Your task to perform on an android device: What's on my calendar tomorrow? Image 0: 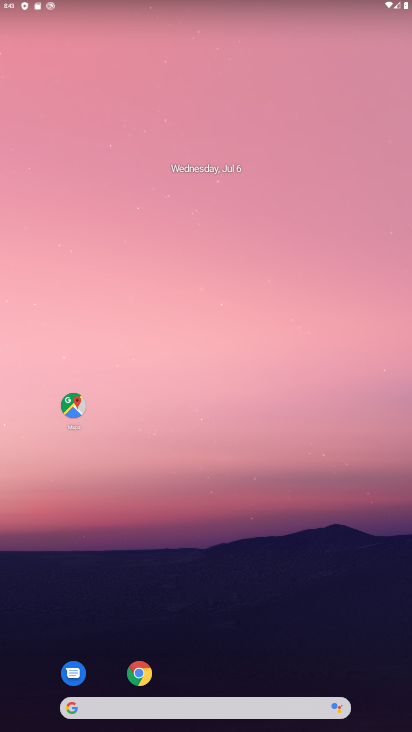
Step 0: drag from (283, 614) to (282, 152)
Your task to perform on an android device: What's on my calendar tomorrow? Image 1: 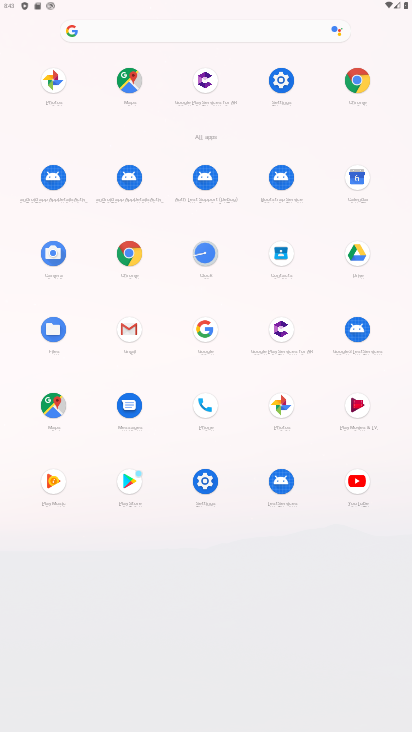
Step 1: click (354, 180)
Your task to perform on an android device: What's on my calendar tomorrow? Image 2: 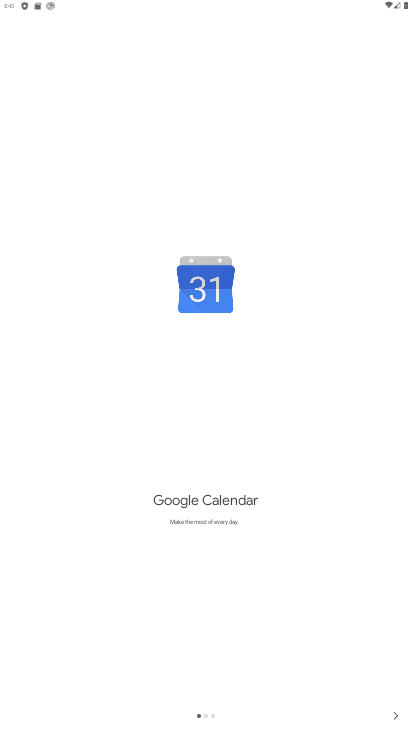
Step 2: click (271, 516)
Your task to perform on an android device: What's on my calendar tomorrow? Image 3: 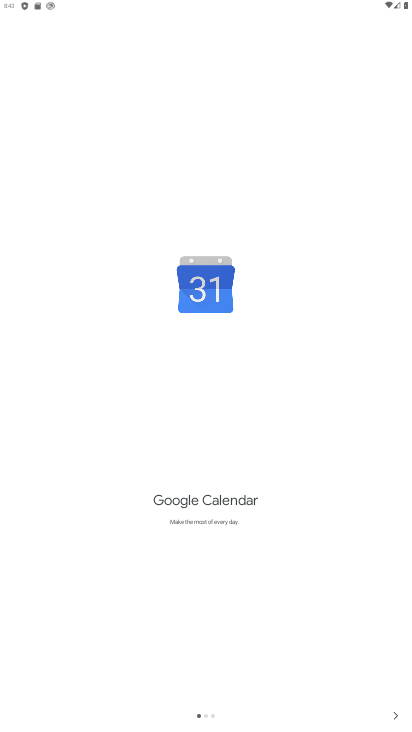
Step 3: click (271, 516)
Your task to perform on an android device: What's on my calendar tomorrow? Image 4: 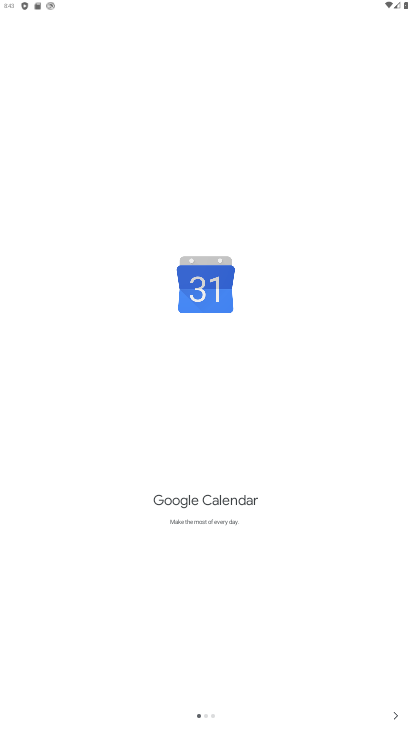
Step 4: click (396, 715)
Your task to perform on an android device: What's on my calendar tomorrow? Image 5: 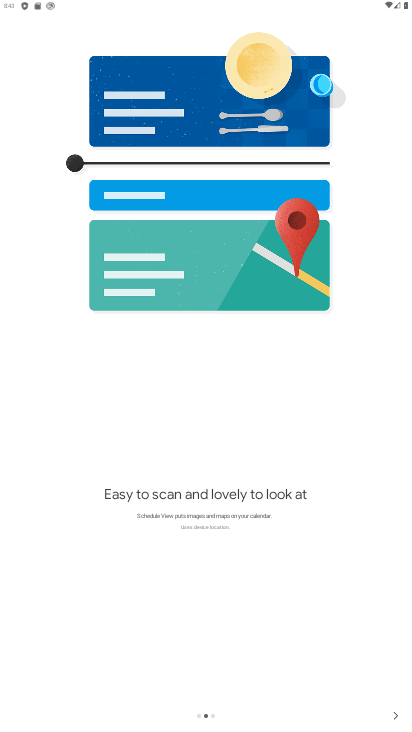
Step 5: click (396, 715)
Your task to perform on an android device: What's on my calendar tomorrow? Image 6: 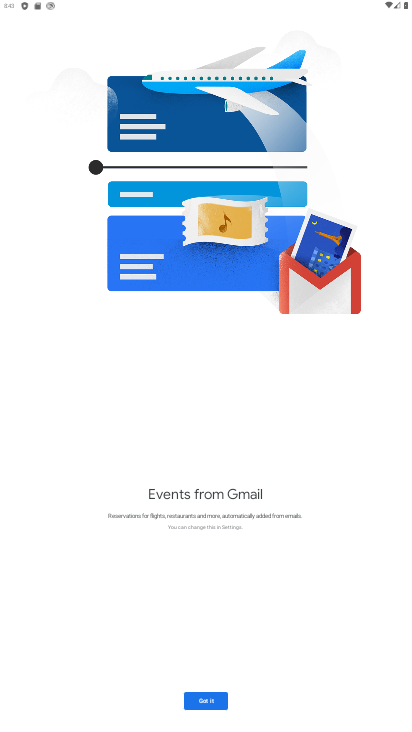
Step 6: click (207, 699)
Your task to perform on an android device: What's on my calendar tomorrow? Image 7: 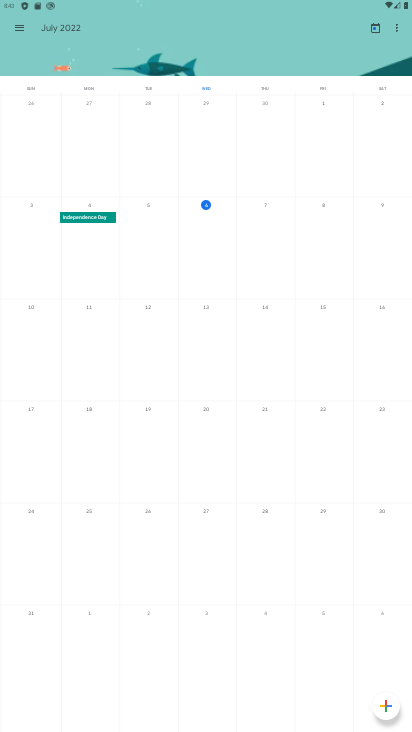
Step 7: click (254, 212)
Your task to perform on an android device: What's on my calendar tomorrow? Image 8: 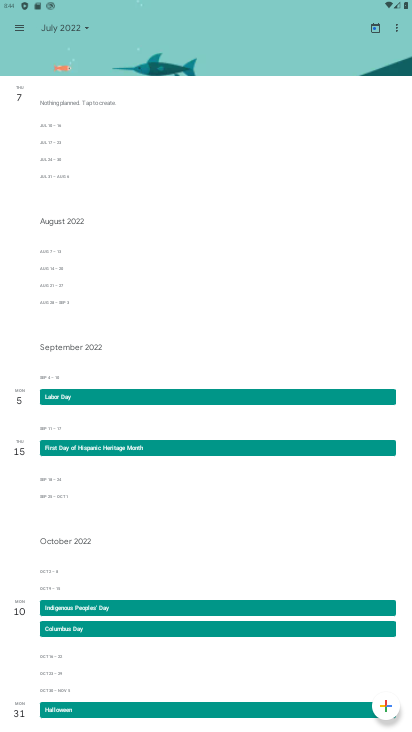
Step 8: task complete